Your task to perform on an android device: change the clock display to analog Image 0: 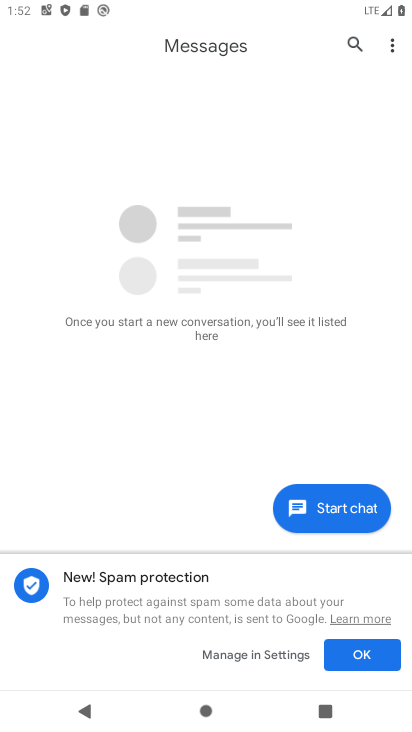
Step 0: press home button
Your task to perform on an android device: change the clock display to analog Image 1: 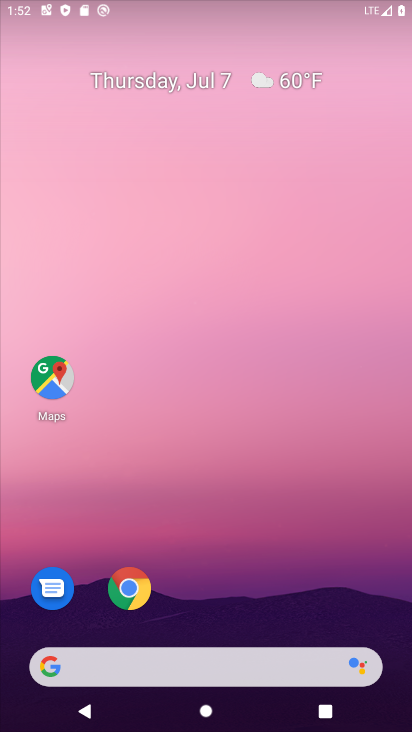
Step 1: drag from (210, 583) to (245, 200)
Your task to perform on an android device: change the clock display to analog Image 2: 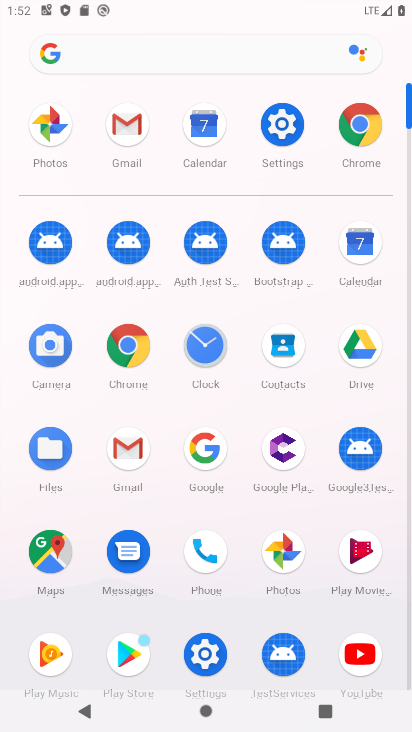
Step 2: click (198, 340)
Your task to perform on an android device: change the clock display to analog Image 3: 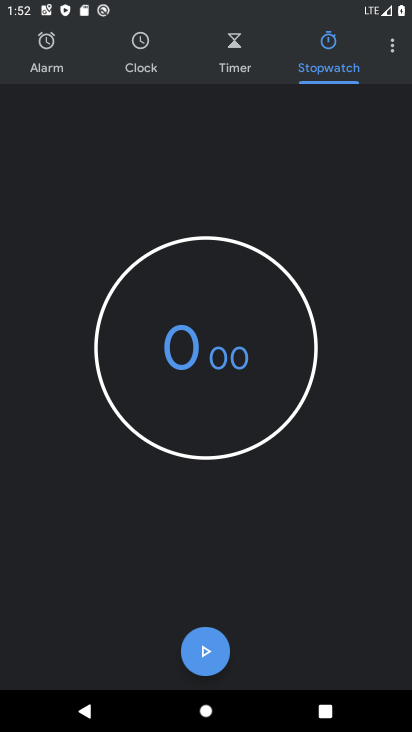
Step 3: click (400, 41)
Your task to perform on an android device: change the clock display to analog Image 4: 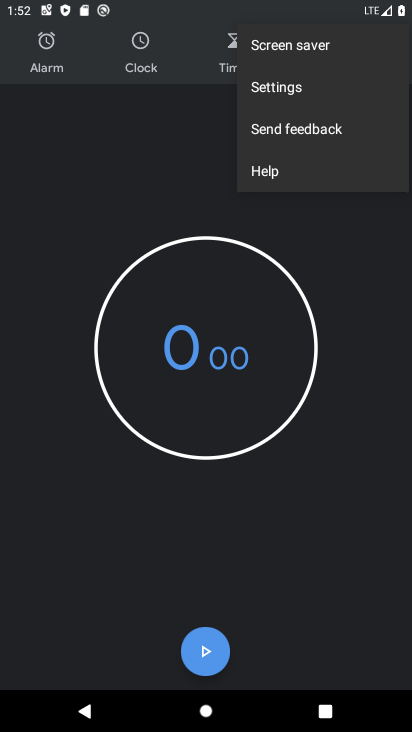
Step 4: click (297, 102)
Your task to perform on an android device: change the clock display to analog Image 5: 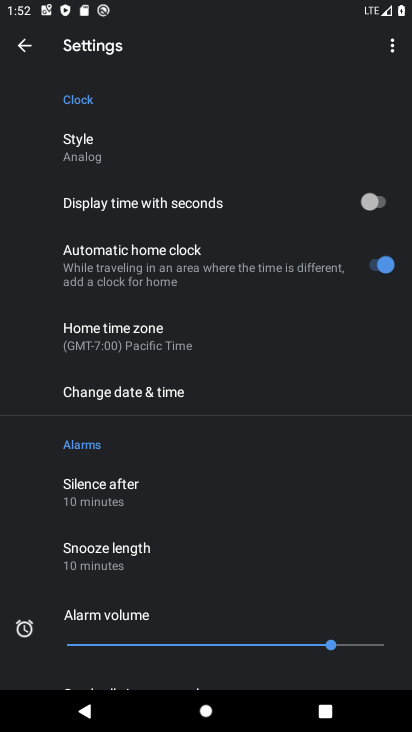
Step 5: click (106, 163)
Your task to perform on an android device: change the clock display to analog Image 6: 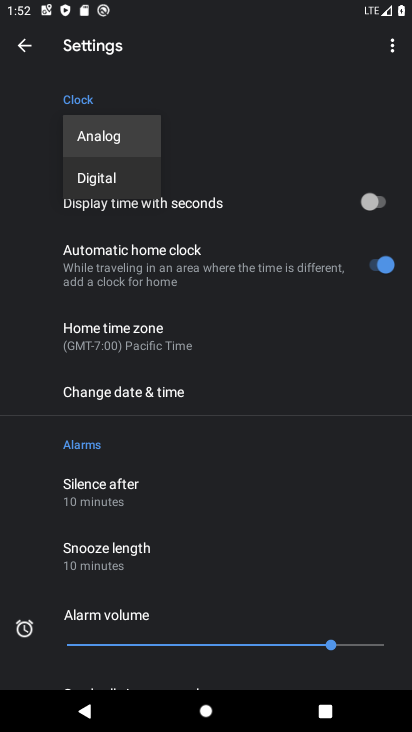
Step 6: click (112, 173)
Your task to perform on an android device: change the clock display to analog Image 7: 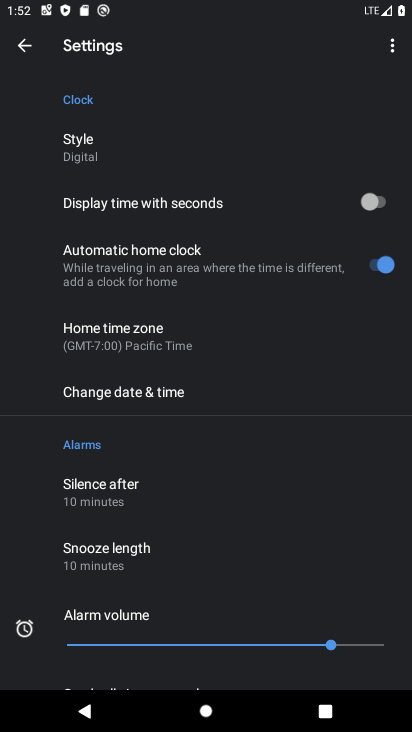
Step 7: task complete